Your task to perform on an android device: Open Google Maps and go to "Timeline" Image 0: 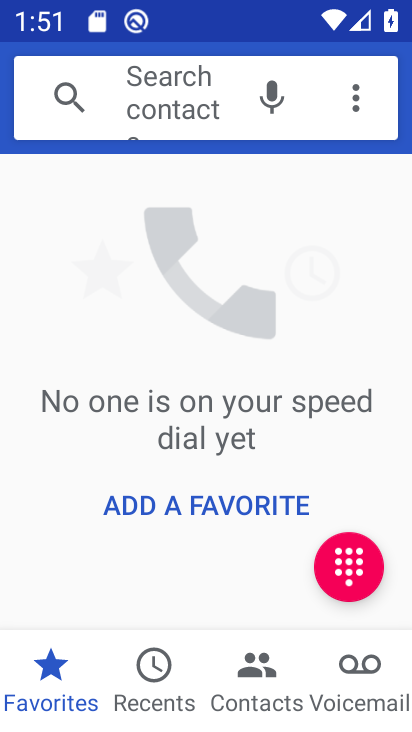
Step 0: press home button
Your task to perform on an android device: Open Google Maps and go to "Timeline" Image 1: 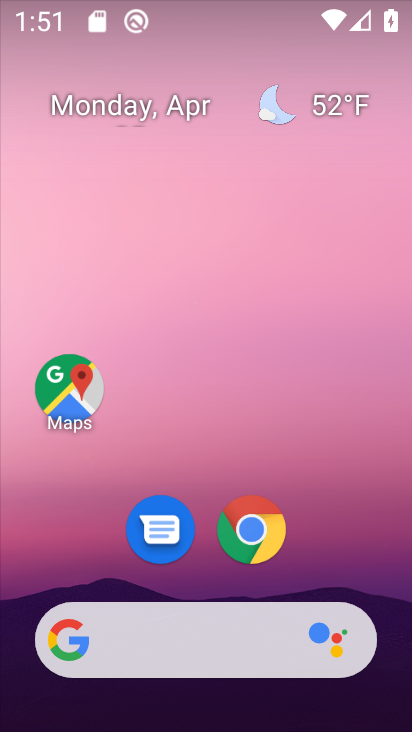
Step 1: click (337, 76)
Your task to perform on an android device: Open Google Maps and go to "Timeline" Image 2: 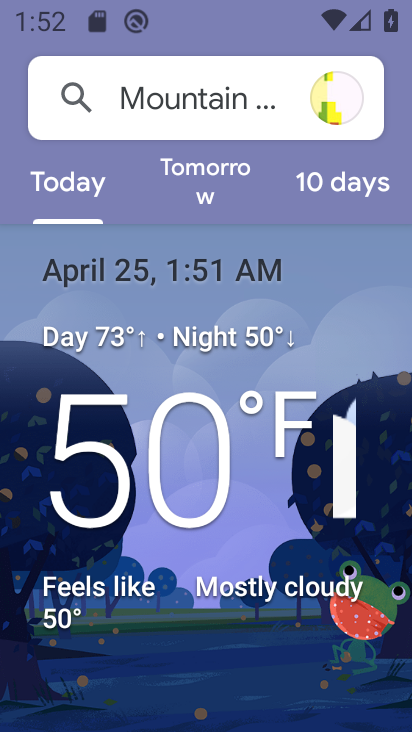
Step 2: press back button
Your task to perform on an android device: Open Google Maps and go to "Timeline" Image 3: 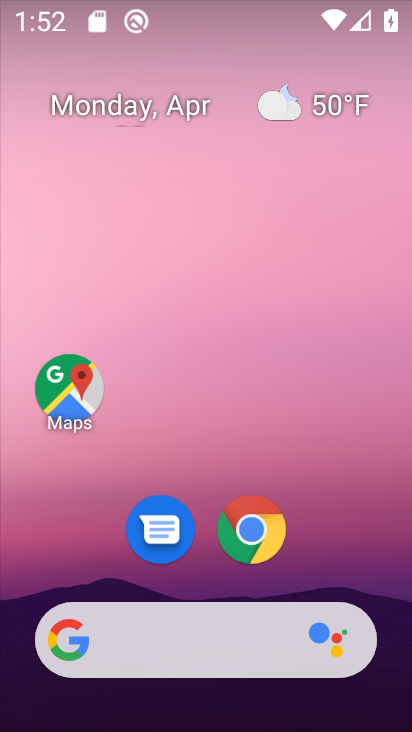
Step 3: click (343, 152)
Your task to perform on an android device: Open Google Maps and go to "Timeline" Image 4: 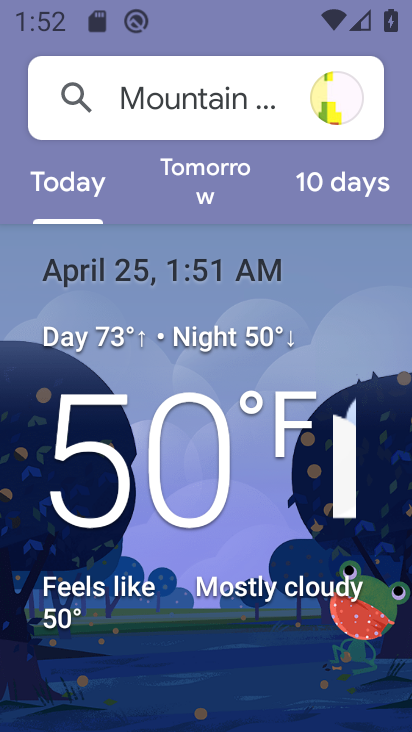
Step 4: press back button
Your task to perform on an android device: Open Google Maps and go to "Timeline" Image 5: 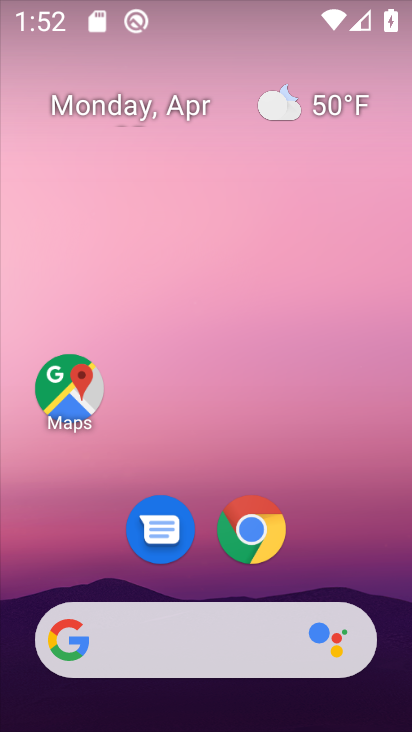
Step 5: drag from (363, 236) to (351, 121)
Your task to perform on an android device: Open Google Maps and go to "Timeline" Image 6: 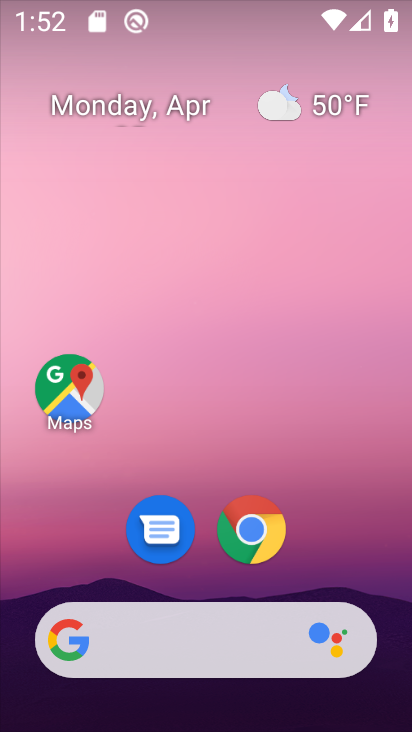
Step 6: drag from (395, 632) to (344, 83)
Your task to perform on an android device: Open Google Maps and go to "Timeline" Image 7: 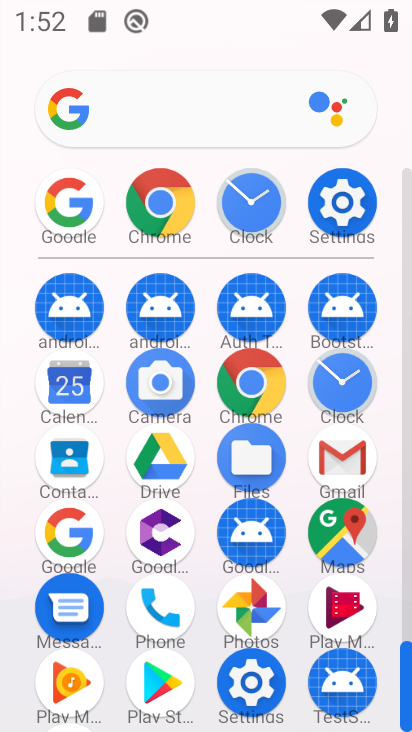
Step 7: click (65, 539)
Your task to perform on an android device: Open Google Maps and go to "Timeline" Image 8: 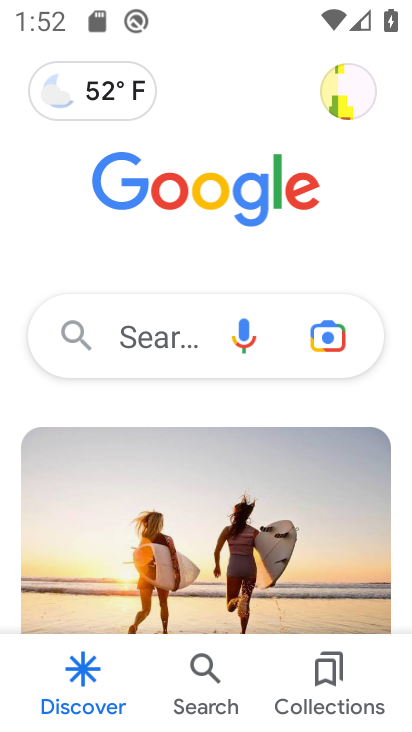
Step 8: press back button
Your task to perform on an android device: Open Google Maps and go to "Timeline" Image 9: 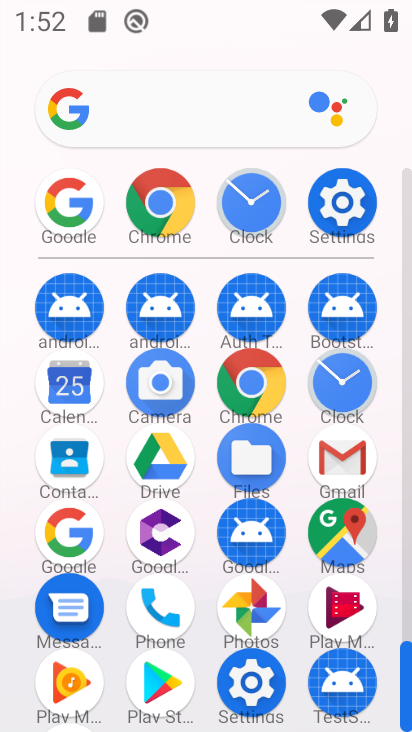
Step 9: click (340, 530)
Your task to perform on an android device: Open Google Maps and go to "Timeline" Image 10: 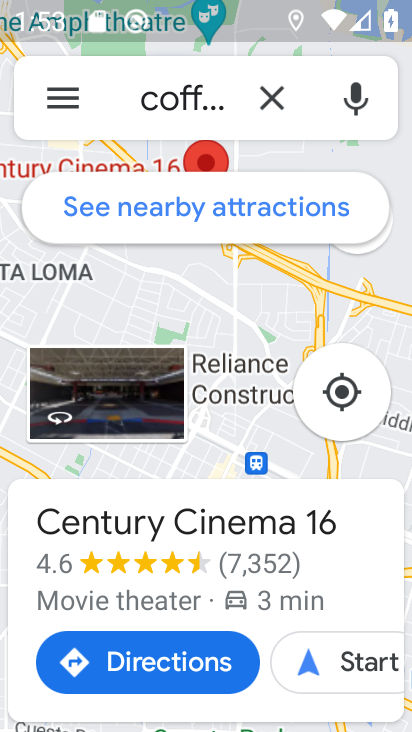
Step 10: click (57, 93)
Your task to perform on an android device: Open Google Maps and go to "Timeline" Image 11: 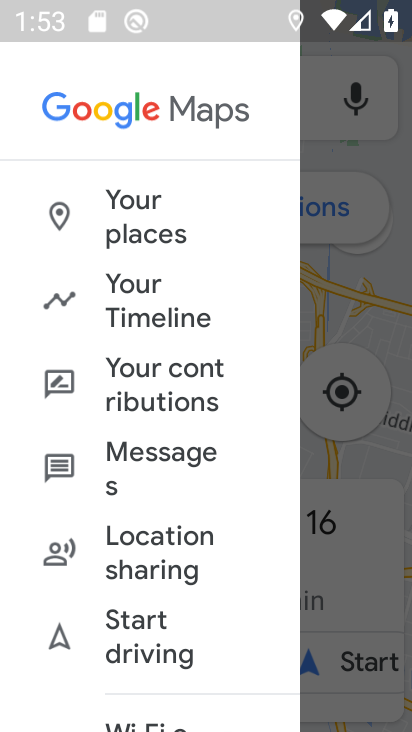
Step 11: click (126, 313)
Your task to perform on an android device: Open Google Maps and go to "Timeline" Image 12: 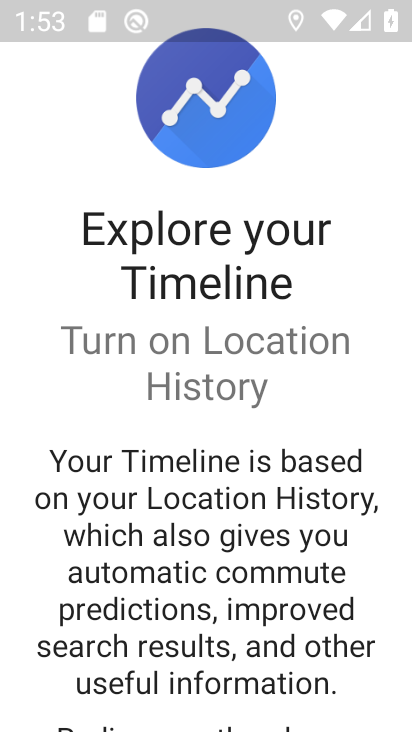
Step 12: drag from (349, 335) to (342, 253)
Your task to perform on an android device: Open Google Maps and go to "Timeline" Image 13: 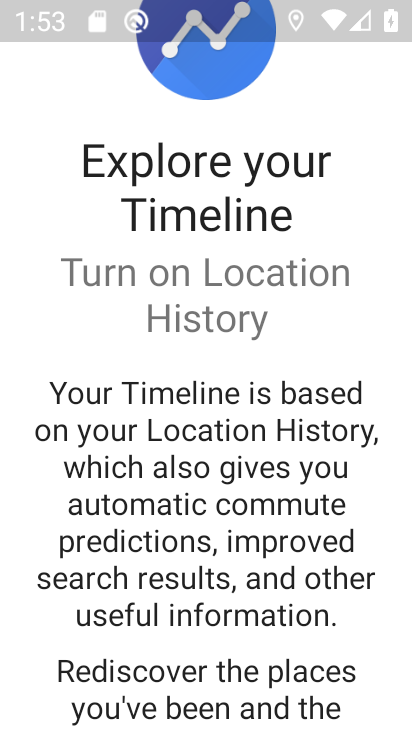
Step 13: drag from (344, 584) to (360, 234)
Your task to perform on an android device: Open Google Maps and go to "Timeline" Image 14: 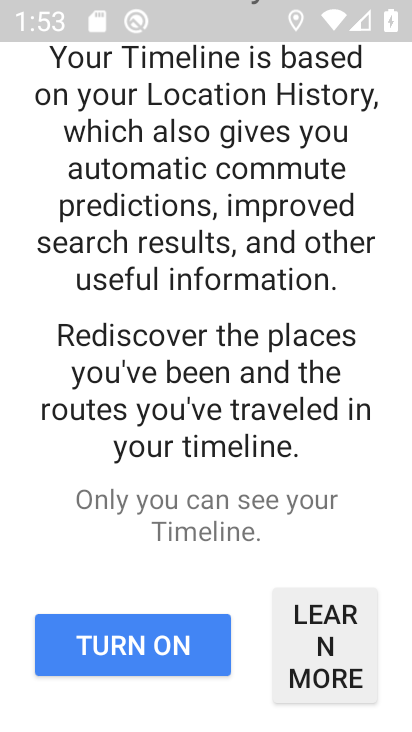
Step 14: click (115, 644)
Your task to perform on an android device: Open Google Maps and go to "Timeline" Image 15: 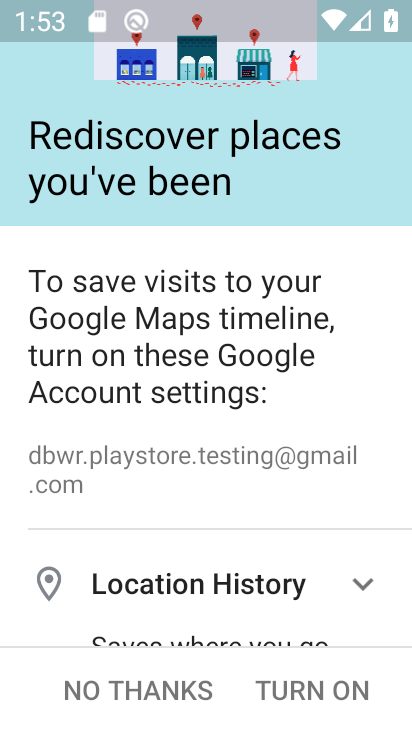
Step 15: click (330, 676)
Your task to perform on an android device: Open Google Maps and go to "Timeline" Image 16: 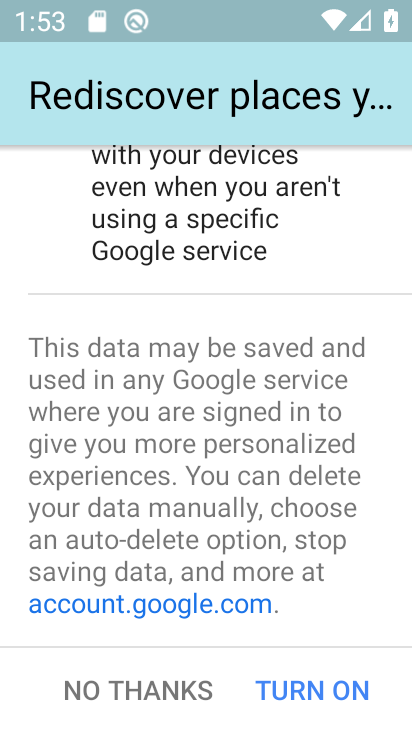
Step 16: task complete